Your task to perform on an android device: Go to Yahoo.com Image 0: 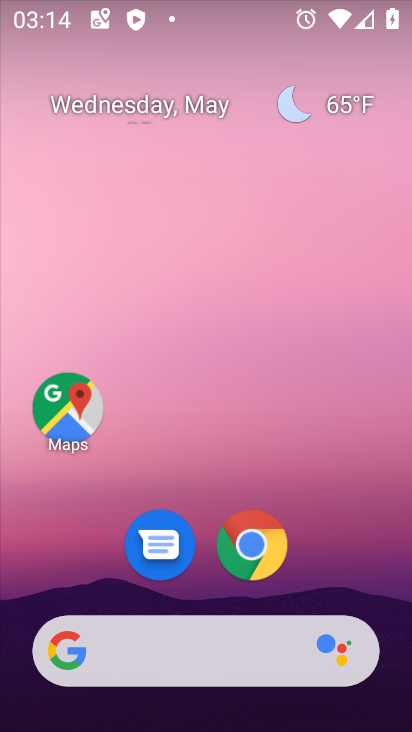
Step 0: click (270, 551)
Your task to perform on an android device: Go to Yahoo.com Image 1: 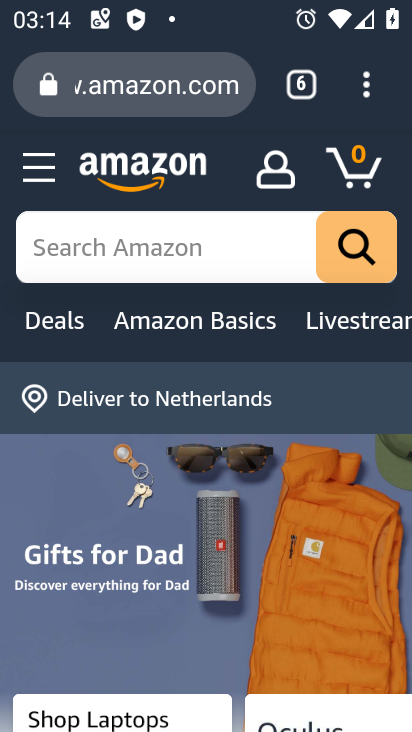
Step 1: click (304, 100)
Your task to perform on an android device: Go to Yahoo.com Image 2: 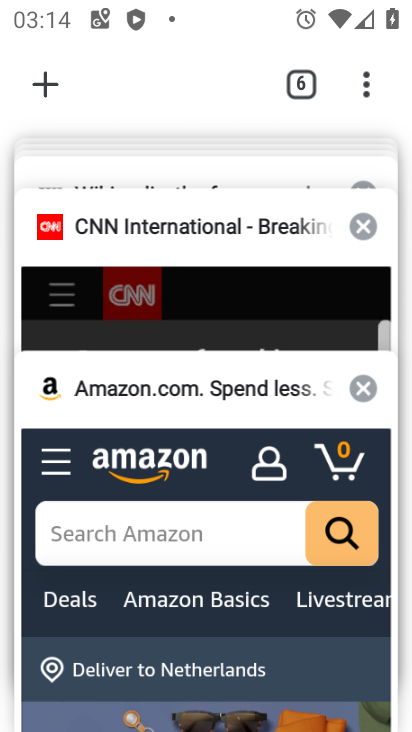
Step 2: drag from (199, 275) to (210, 622)
Your task to perform on an android device: Go to Yahoo.com Image 3: 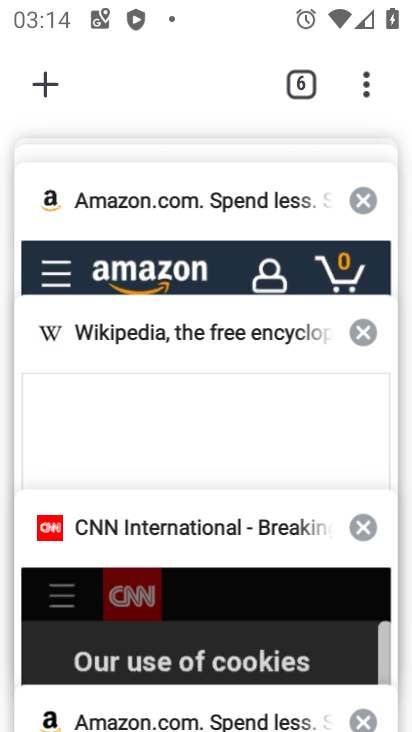
Step 3: drag from (146, 275) to (108, 630)
Your task to perform on an android device: Go to Yahoo.com Image 4: 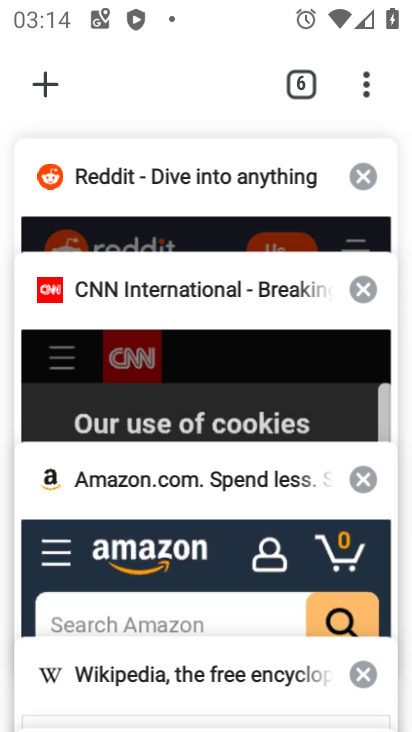
Step 4: click (37, 82)
Your task to perform on an android device: Go to Yahoo.com Image 5: 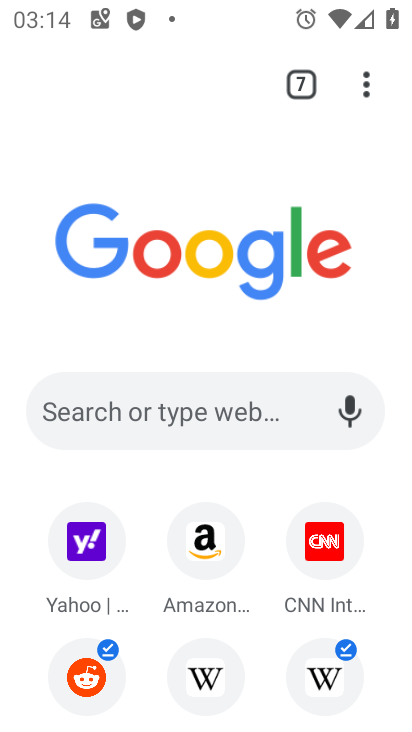
Step 5: click (73, 533)
Your task to perform on an android device: Go to Yahoo.com Image 6: 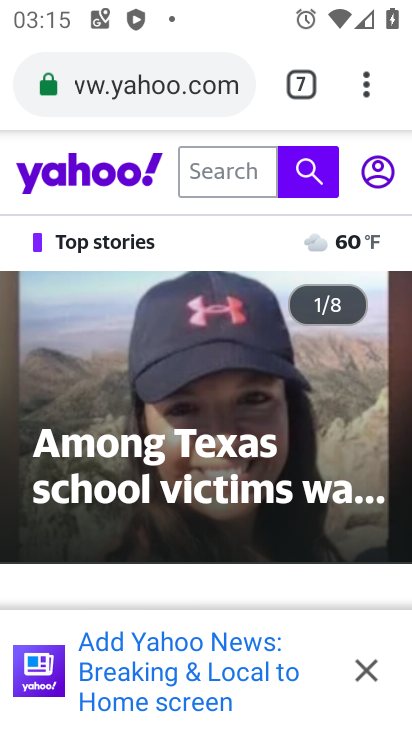
Step 6: task complete